Your task to perform on an android device: toggle notification dots Image 0: 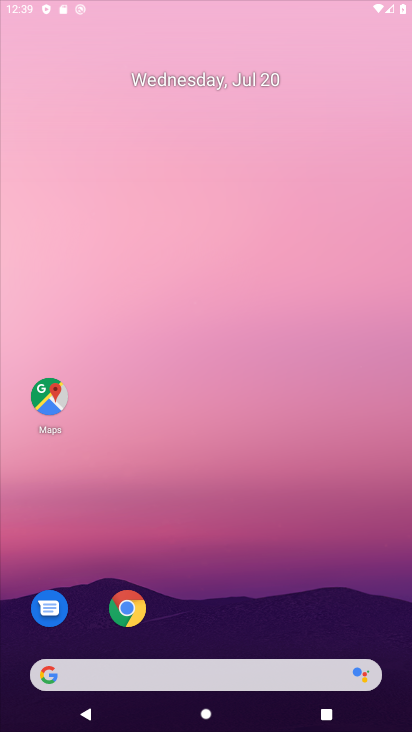
Step 0: press home button
Your task to perform on an android device: toggle notification dots Image 1: 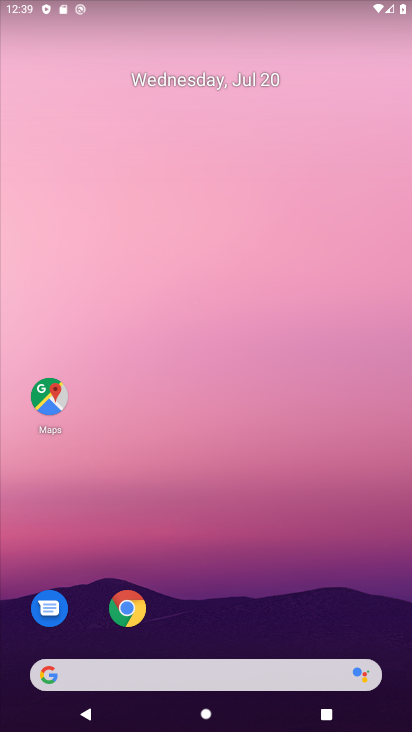
Step 1: drag from (220, 656) to (223, 244)
Your task to perform on an android device: toggle notification dots Image 2: 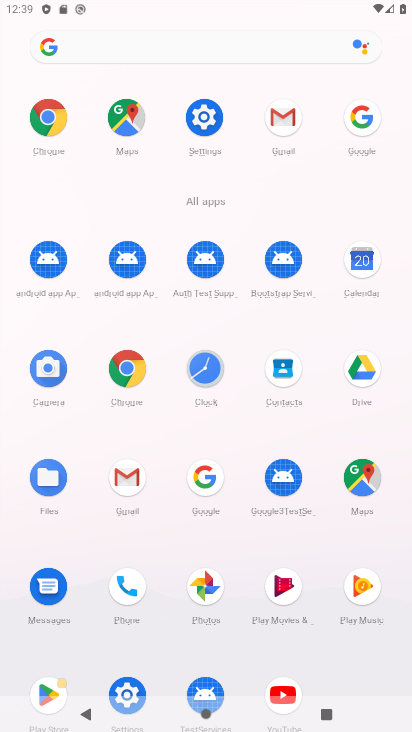
Step 2: click (210, 122)
Your task to perform on an android device: toggle notification dots Image 3: 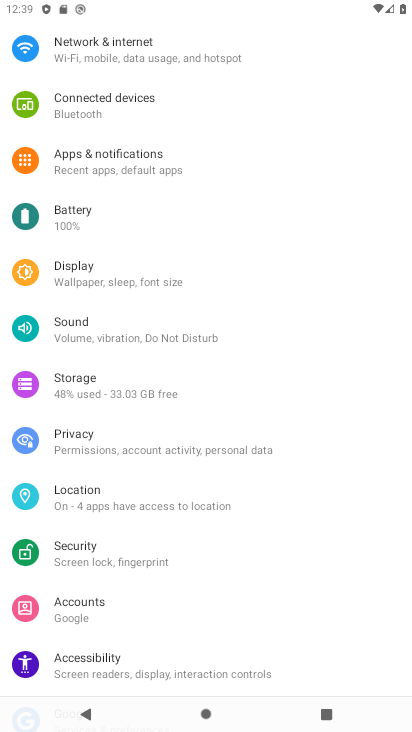
Step 3: click (98, 155)
Your task to perform on an android device: toggle notification dots Image 4: 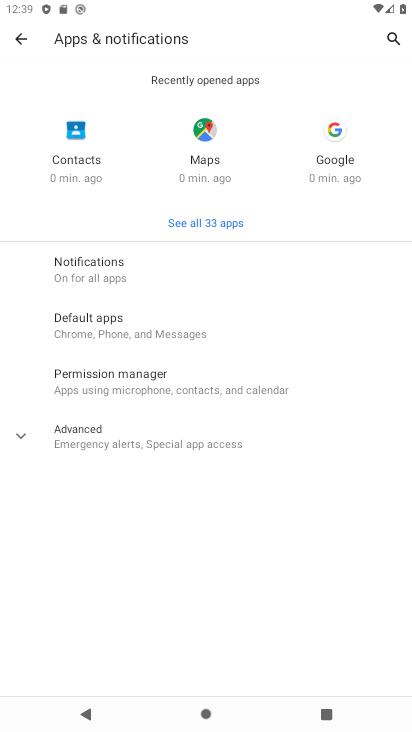
Step 4: click (103, 269)
Your task to perform on an android device: toggle notification dots Image 5: 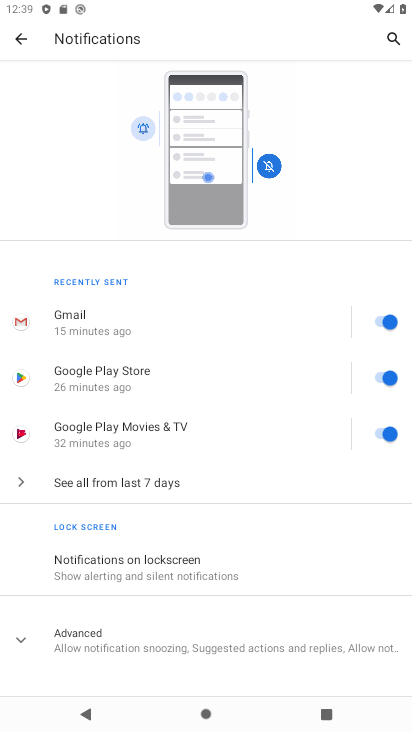
Step 5: click (162, 640)
Your task to perform on an android device: toggle notification dots Image 6: 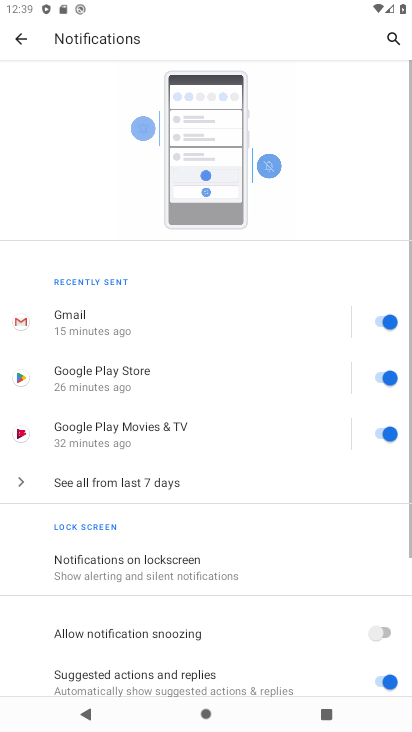
Step 6: drag from (287, 613) to (267, 310)
Your task to perform on an android device: toggle notification dots Image 7: 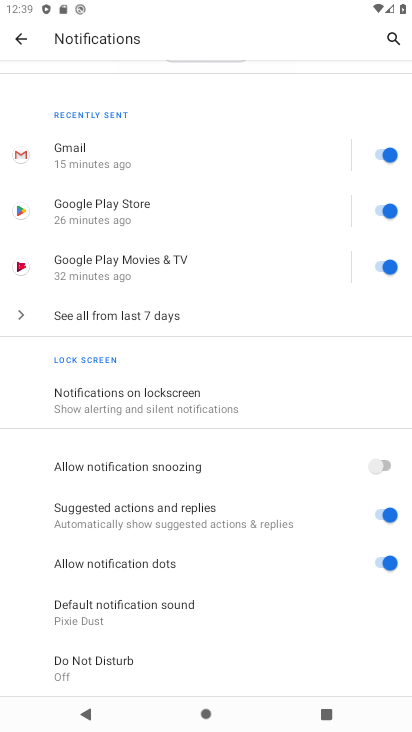
Step 7: click (379, 560)
Your task to perform on an android device: toggle notification dots Image 8: 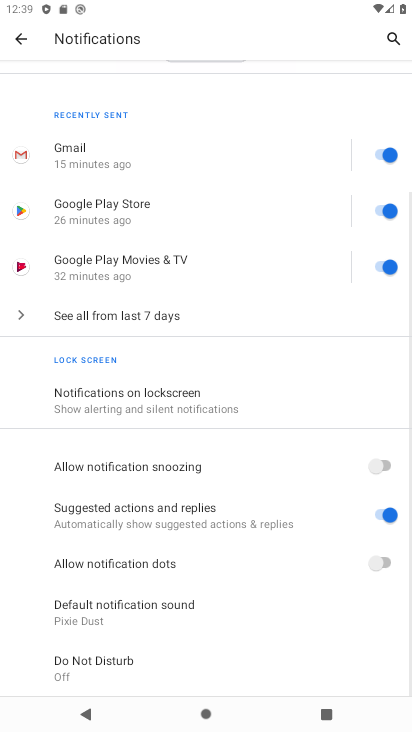
Step 8: task complete